Your task to perform on an android device: open sync settings in chrome Image 0: 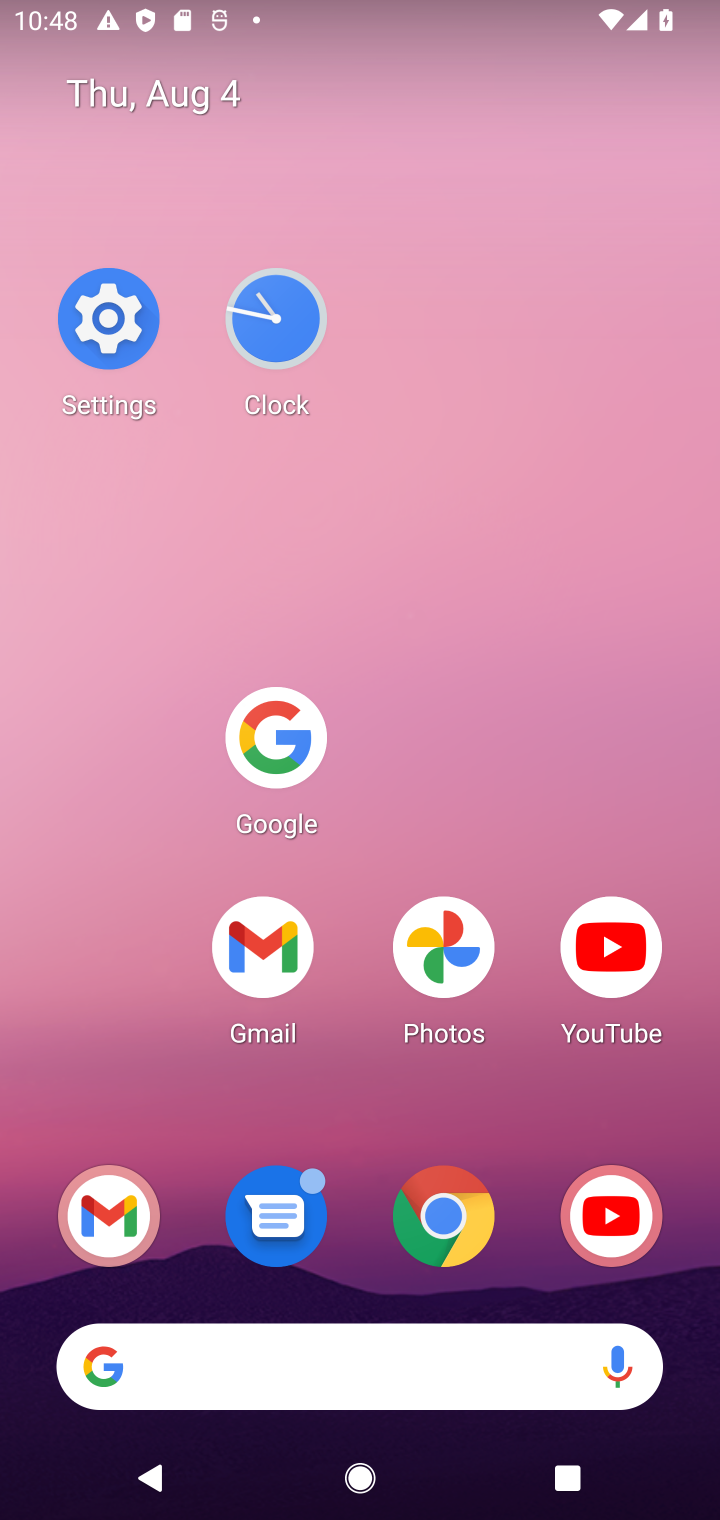
Step 0: click (479, 1181)
Your task to perform on an android device: open sync settings in chrome Image 1: 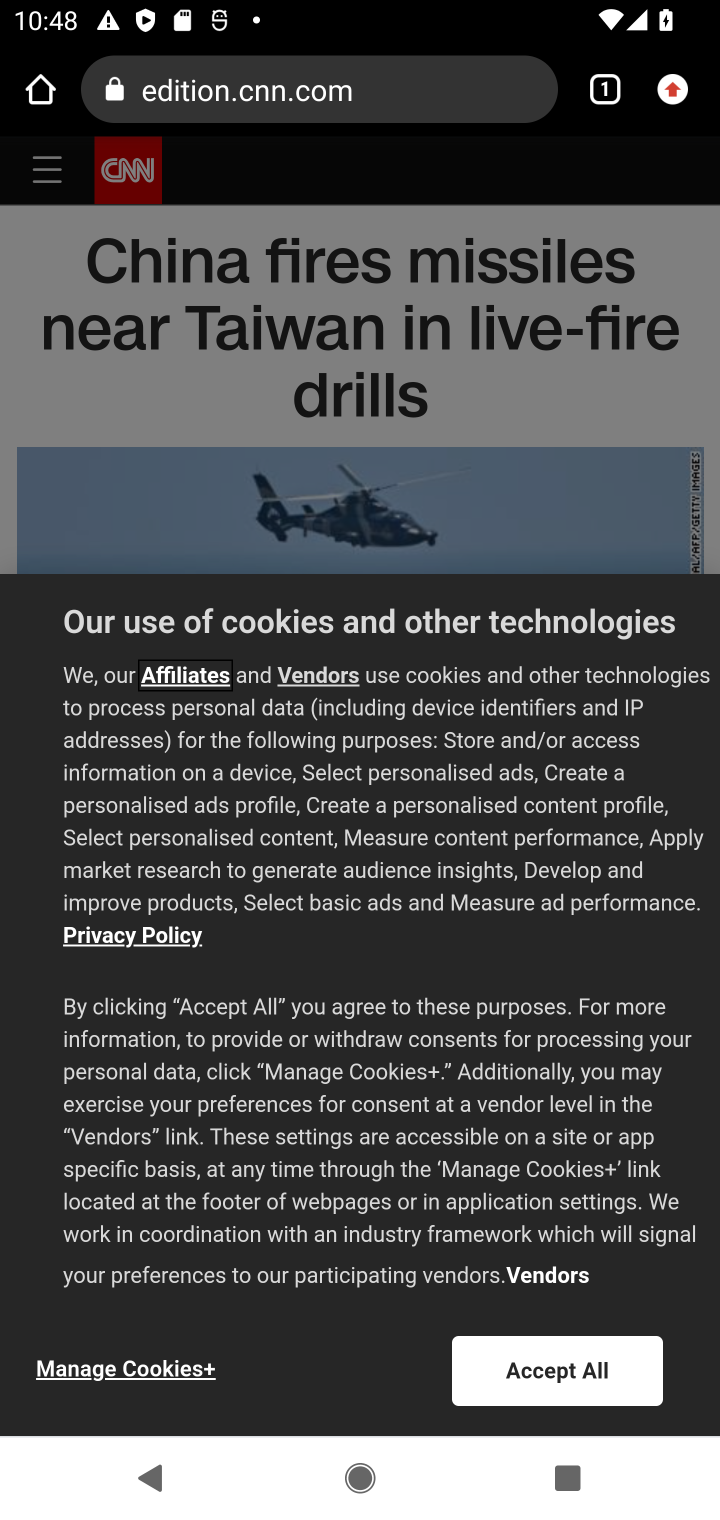
Step 1: click (685, 92)
Your task to perform on an android device: open sync settings in chrome Image 2: 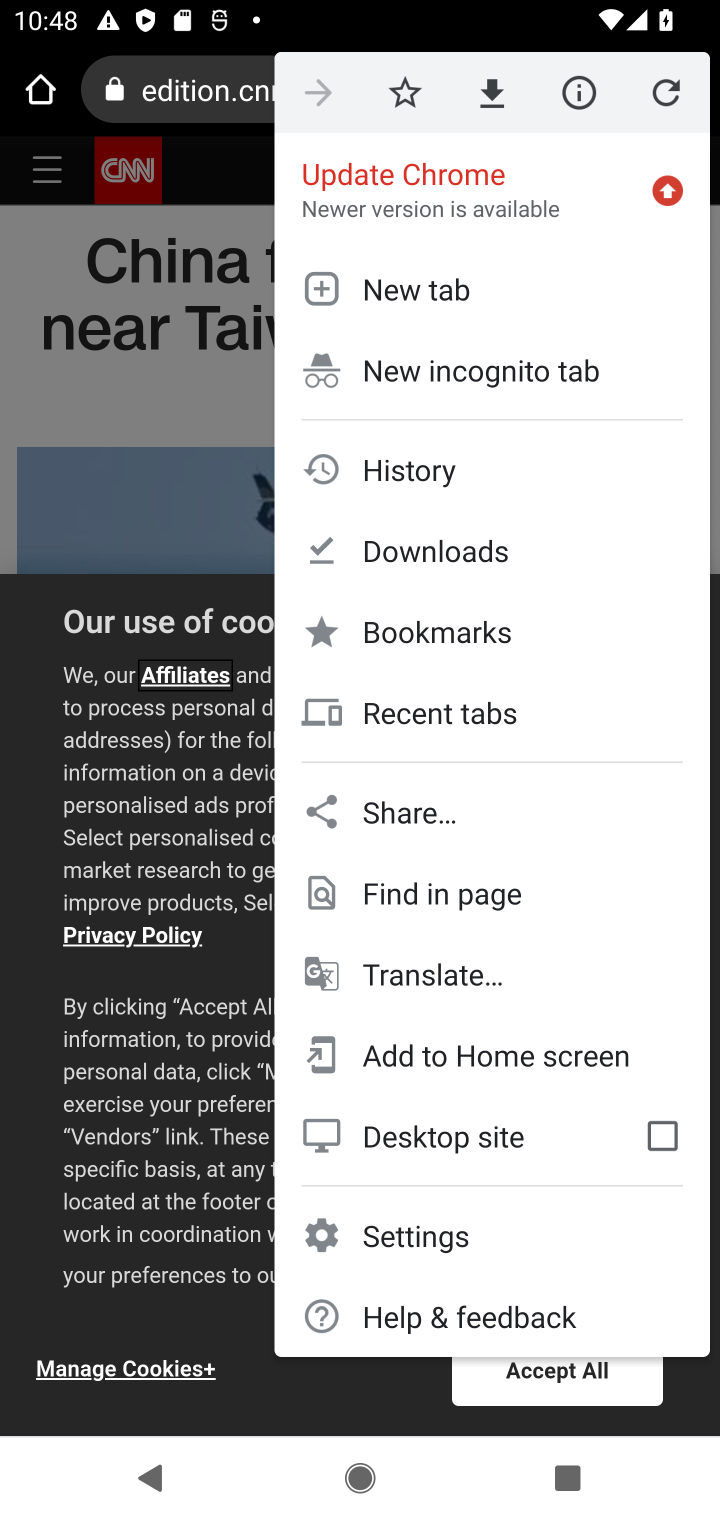
Step 2: click (486, 1207)
Your task to perform on an android device: open sync settings in chrome Image 3: 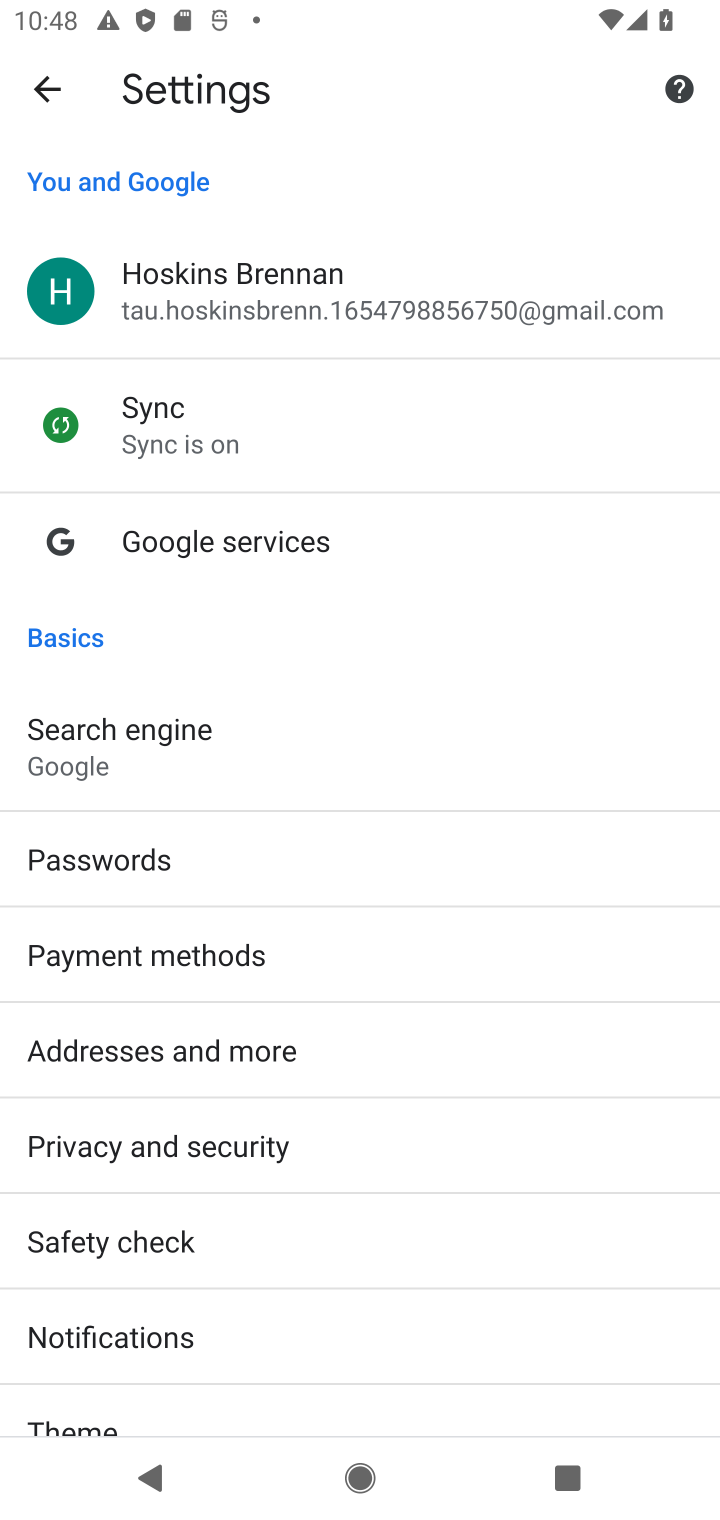
Step 3: drag from (393, 1197) to (470, 597)
Your task to perform on an android device: open sync settings in chrome Image 4: 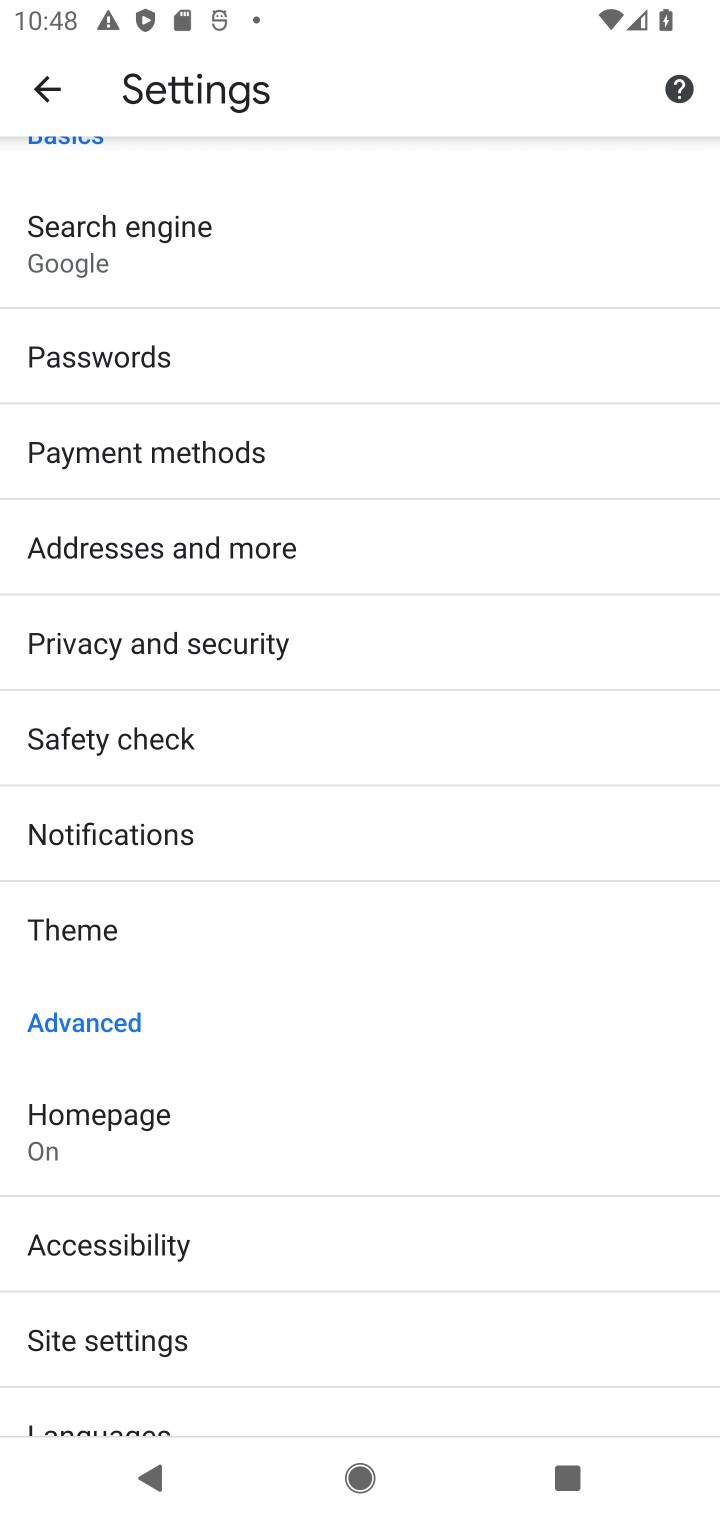
Step 4: click (294, 1360)
Your task to perform on an android device: open sync settings in chrome Image 5: 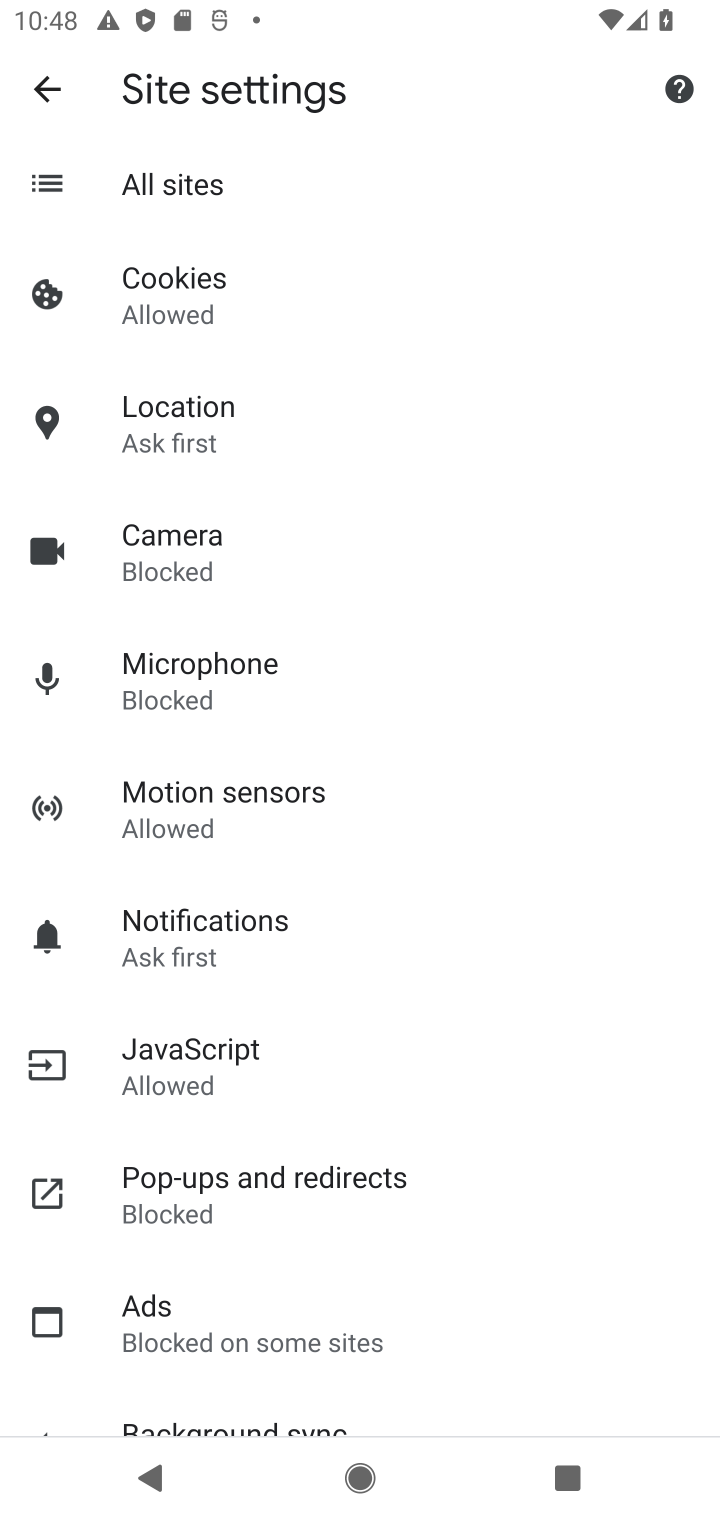
Step 5: drag from (270, 1209) to (348, 639)
Your task to perform on an android device: open sync settings in chrome Image 6: 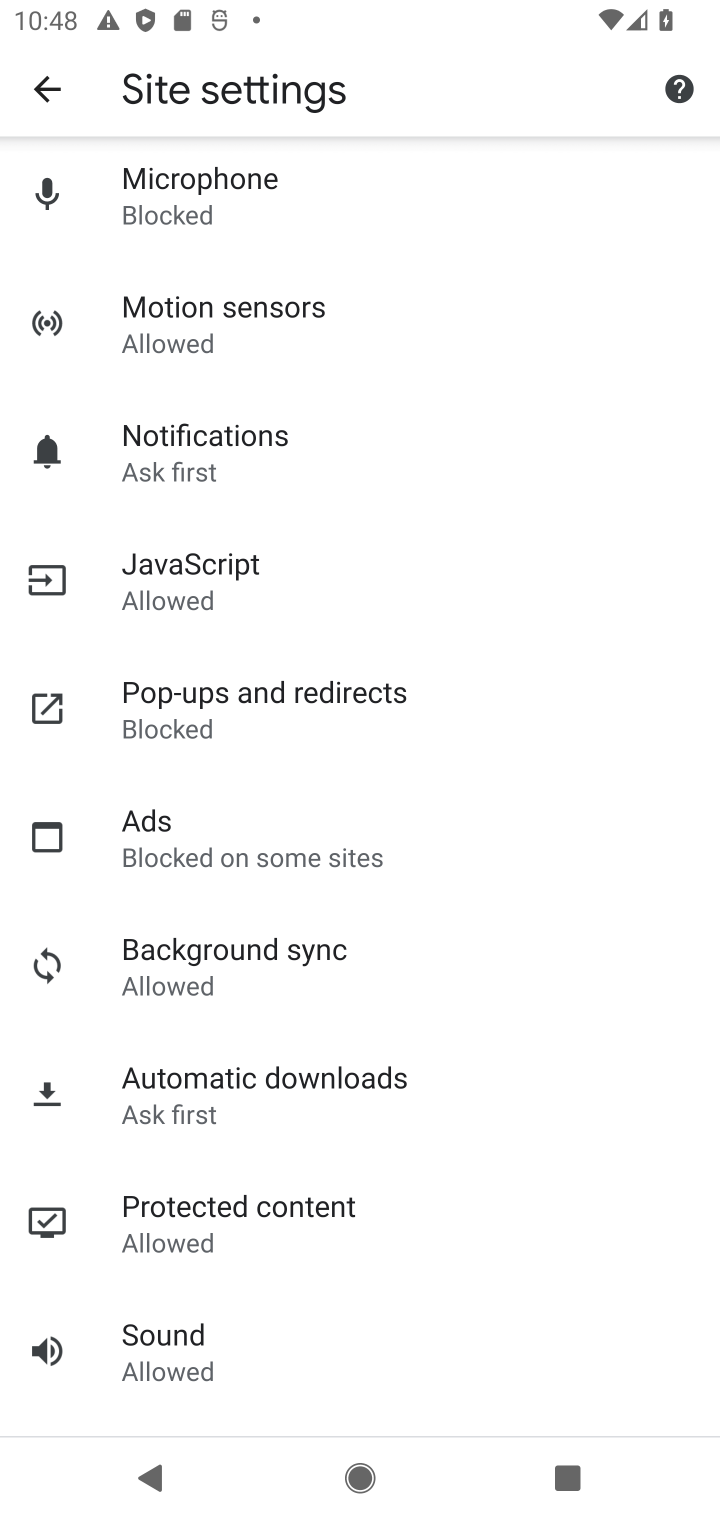
Step 6: click (356, 960)
Your task to perform on an android device: open sync settings in chrome Image 7: 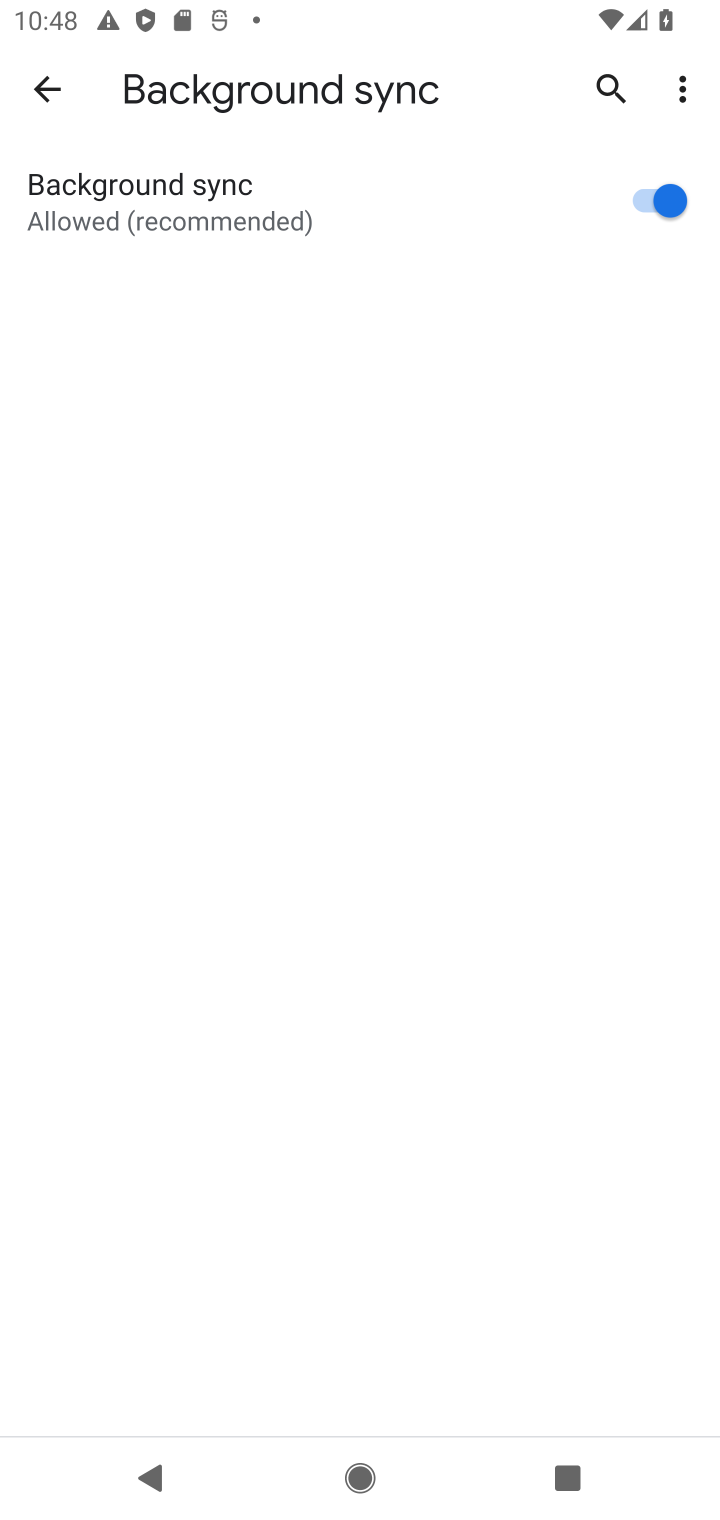
Step 7: task complete